Your task to perform on an android device: Open the phone app and click the voicemail tab. Image 0: 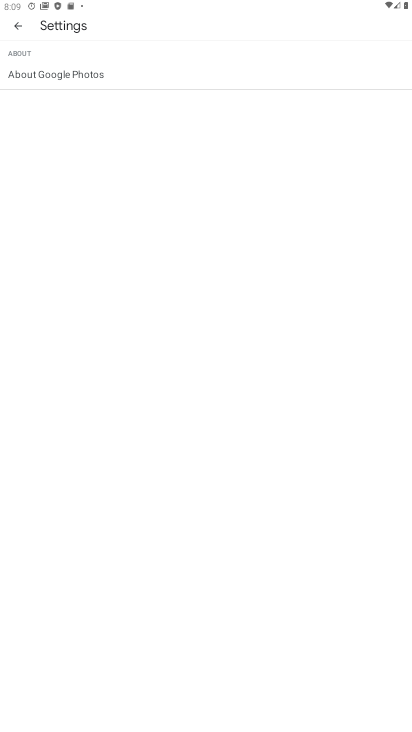
Step 0: press home button
Your task to perform on an android device: Open the phone app and click the voicemail tab. Image 1: 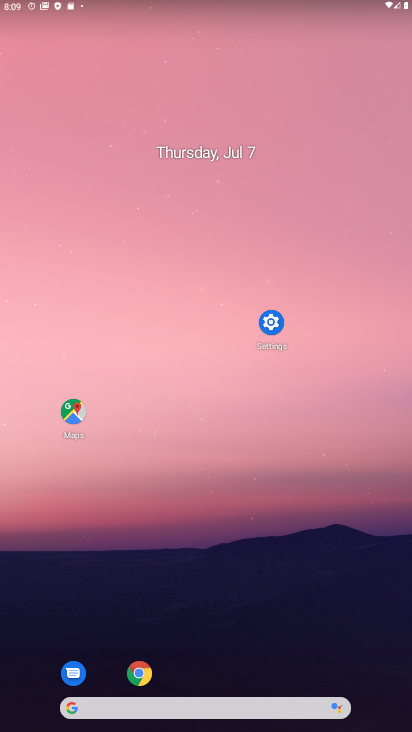
Step 1: drag from (376, 686) to (343, 109)
Your task to perform on an android device: Open the phone app and click the voicemail tab. Image 2: 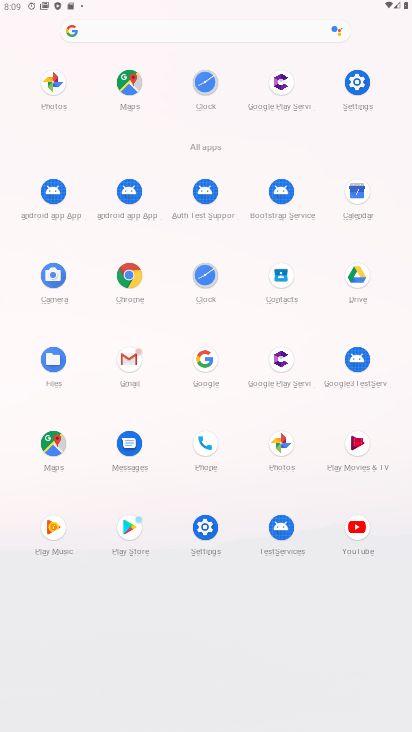
Step 2: click (207, 445)
Your task to perform on an android device: Open the phone app and click the voicemail tab. Image 3: 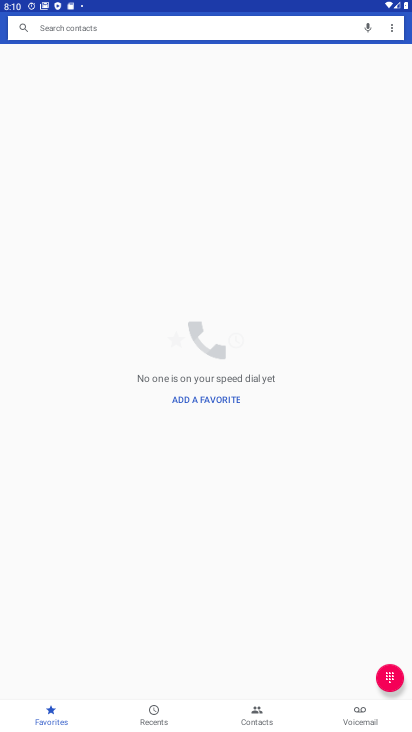
Step 3: click (353, 714)
Your task to perform on an android device: Open the phone app and click the voicemail tab. Image 4: 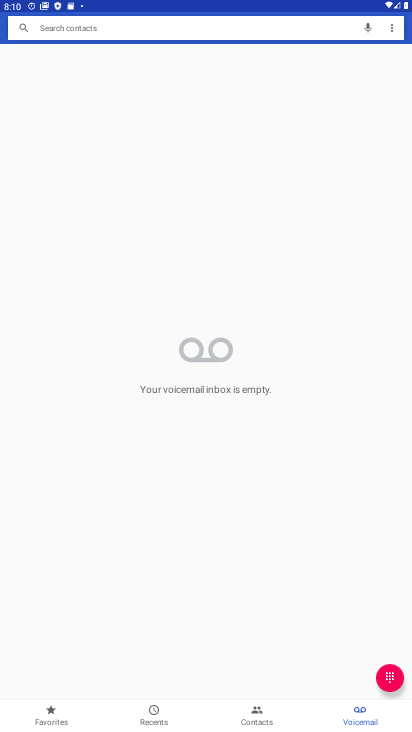
Step 4: task complete